Your task to perform on an android device: turn off location history Image 0: 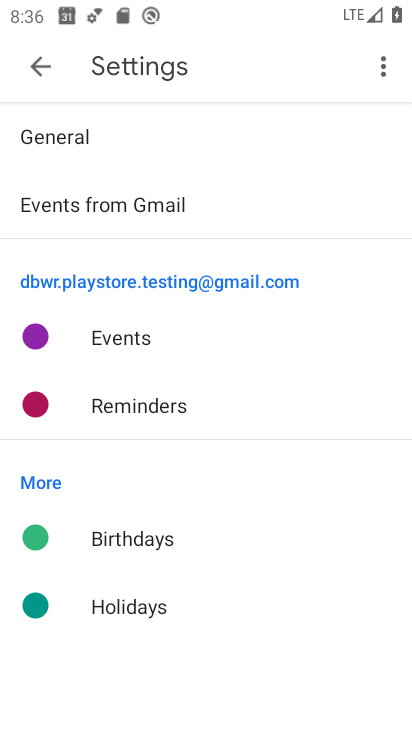
Step 0: press home button
Your task to perform on an android device: turn off location history Image 1: 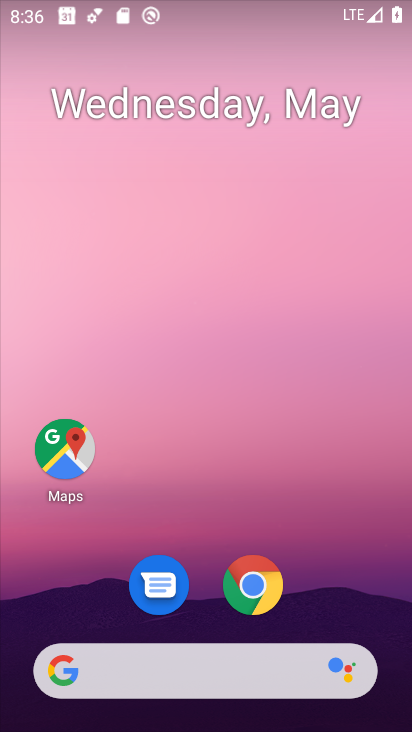
Step 1: drag from (295, 432) to (256, 51)
Your task to perform on an android device: turn off location history Image 2: 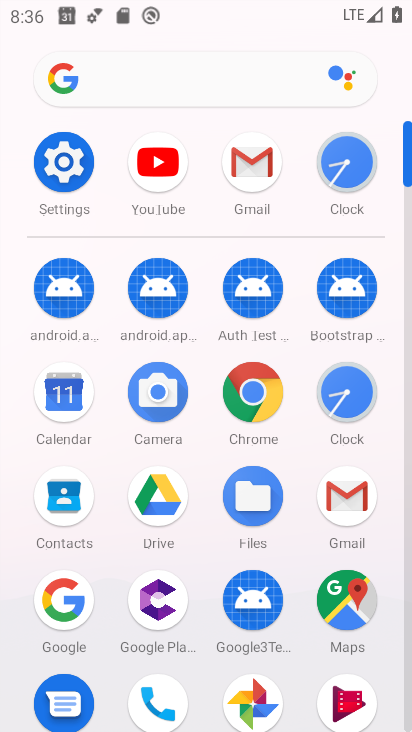
Step 2: click (72, 163)
Your task to perform on an android device: turn off location history Image 3: 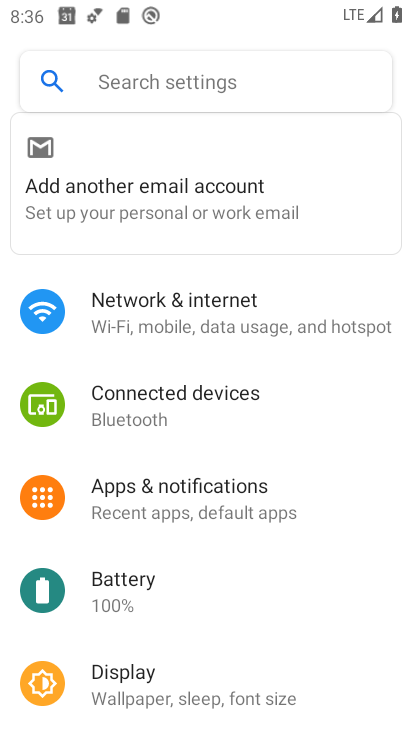
Step 3: drag from (215, 629) to (167, 200)
Your task to perform on an android device: turn off location history Image 4: 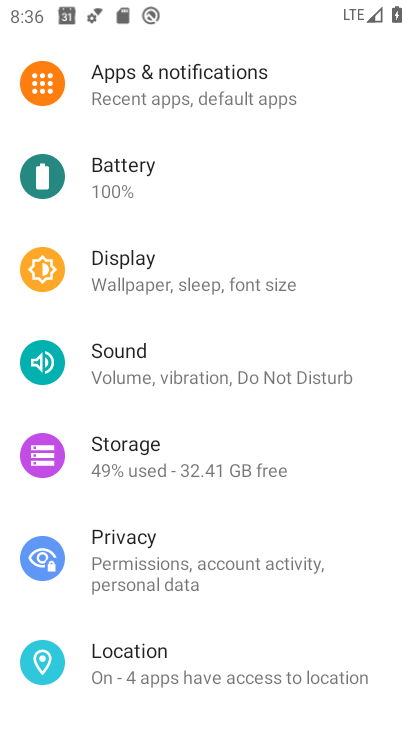
Step 4: click (187, 654)
Your task to perform on an android device: turn off location history Image 5: 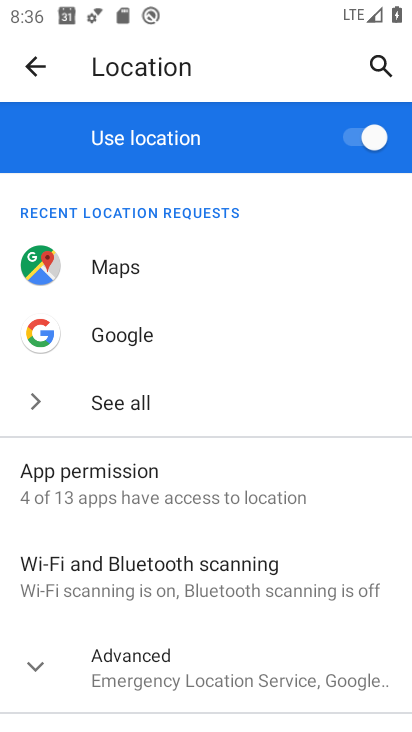
Step 5: click (29, 656)
Your task to perform on an android device: turn off location history Image 6: 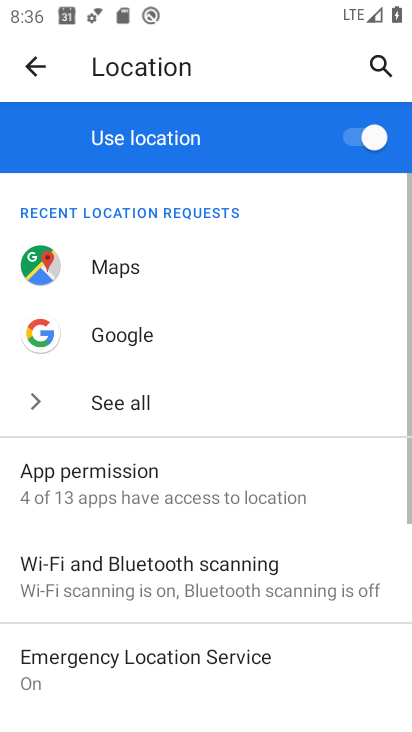
Step 6: drag from (265, 507) to (246, 172)
Your task to perform on an android device: turn off location history Image 7: 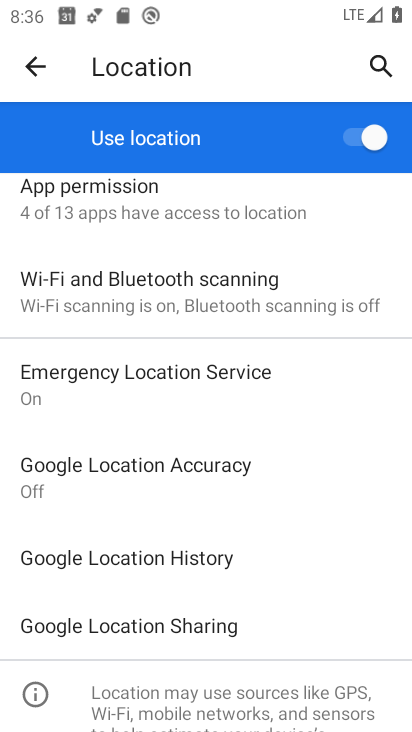
Step 7: click (187, 560)
Your task to perform on an android device: turn off location history Image 8: 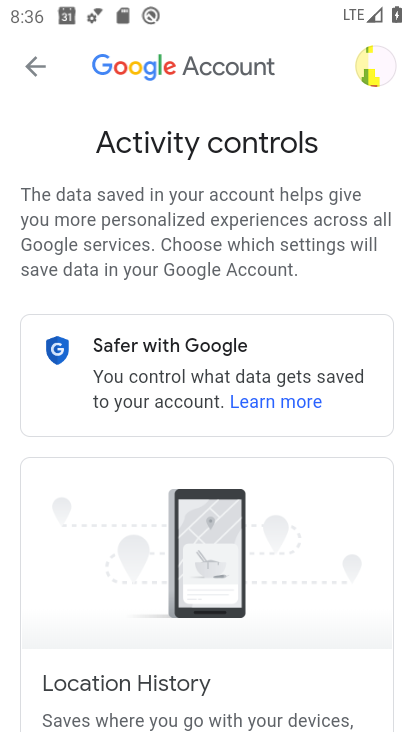
Step 8: task complete